Your task to perform on an android device: turn on javascript in the chrome app Image 0: 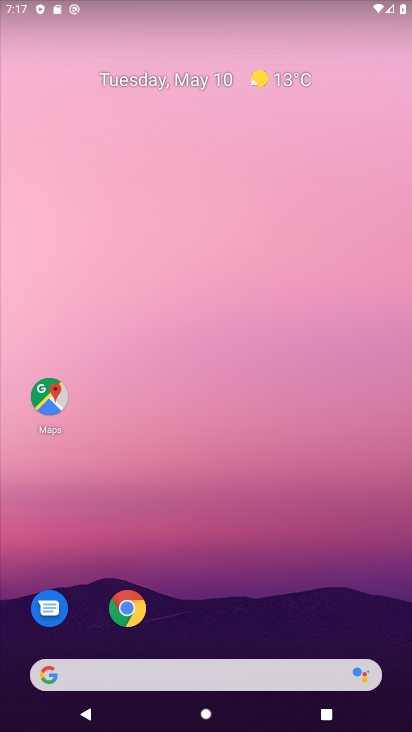
Step 0: click (138, 614)
Your task to perform on an android device: turn on javascript in the chrome app Image 1: 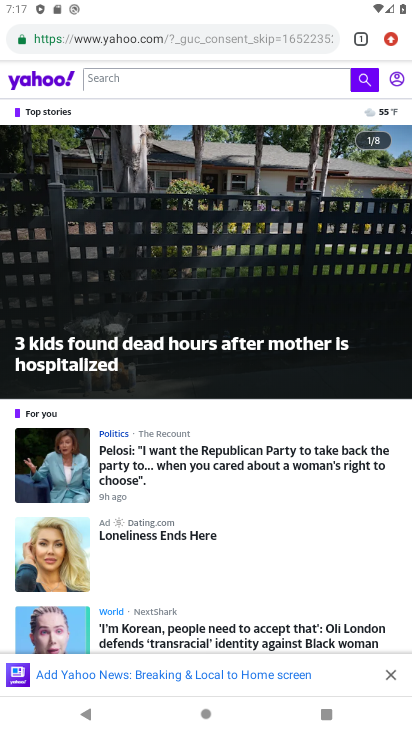
Step 1: click (387, 40)
Your task to perform on an android device: turn on javascript in the chrome app Image 2: 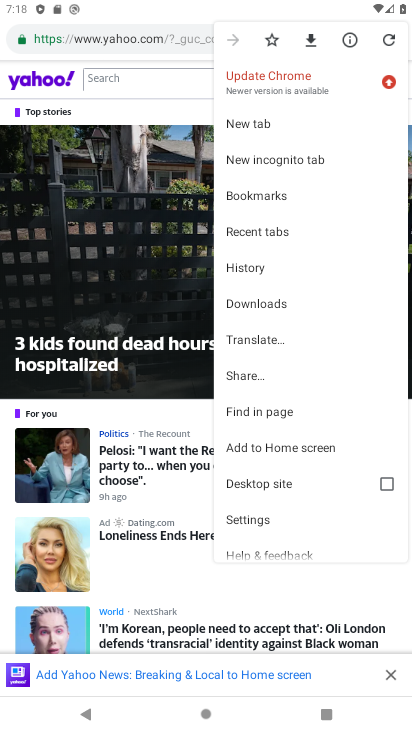
Step 2: click (253, 524)
Your task to perform on an android device: turn on javascript in the chrome app Image 3: 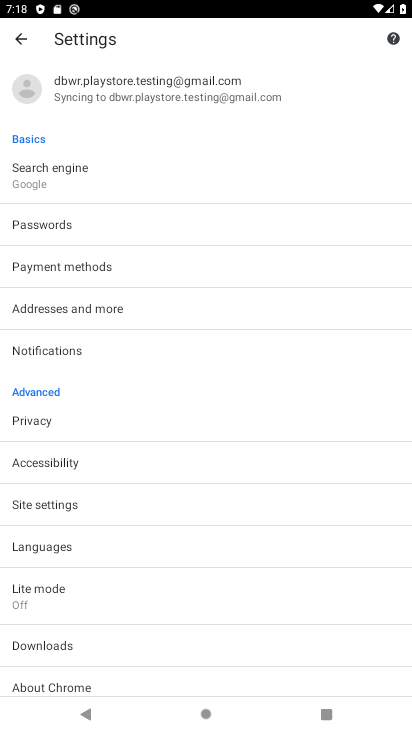
Step 3: click (52, 512)
Your task to perform on an android device: turn on javascript in the chrome app Image 4: 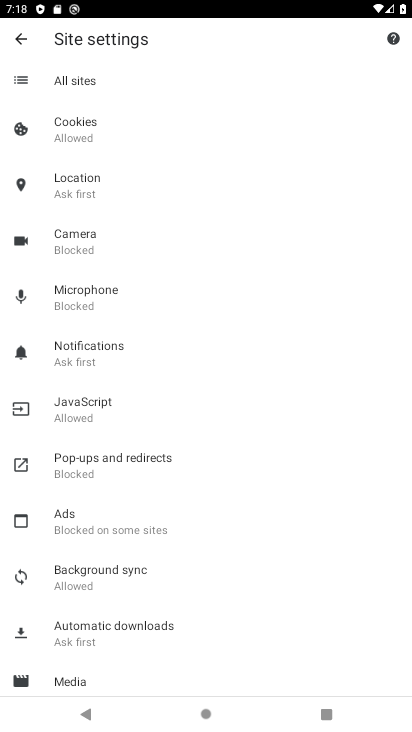
Step 4: click (74, 400)
Your task to perform on an android device: turn on javascript in the chrome app Image 5: 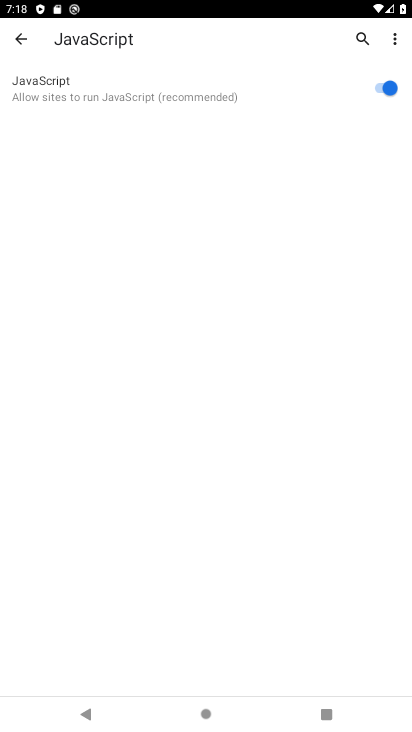
Step 5: task complete